Your task to perform on an android device: read, delete, or share a saved page in the chrome app Image 0: 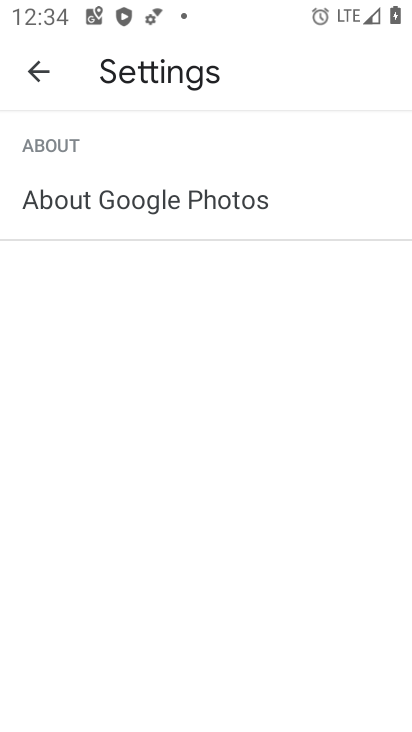
Step 0: press home button
Your task to perform on an android device: read, delete, or share a saved page in the chrome app Image 1: 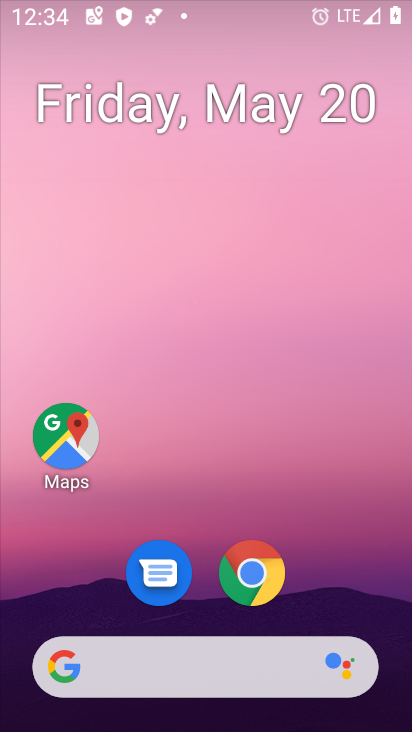
Step 1: drag from (326, 588) to (374, 106)
Your task to perform on an android device: read, delete, or share a saved page in the chrome app Image 2: 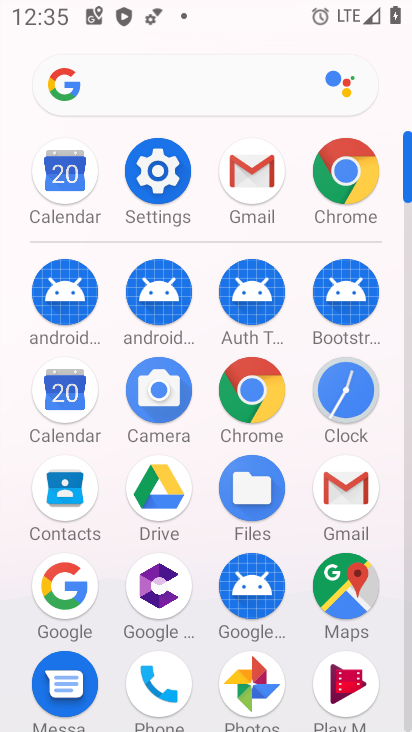
Step 2: click (342, 174)
Your task to perform on an android device: read, delete, or share a saved page in the chrome app Image 3: 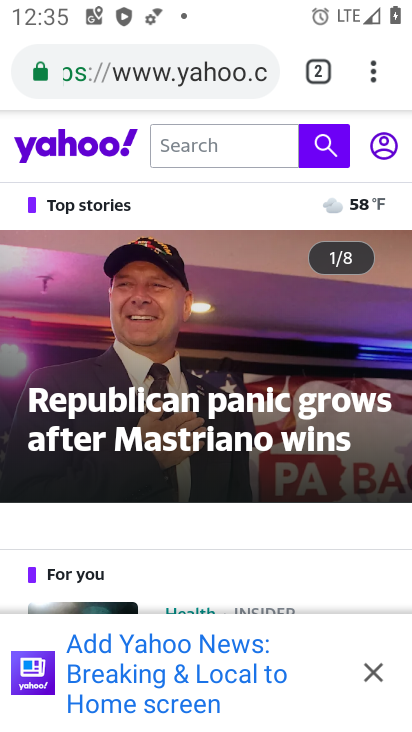
Step 3: click (366, 69)
Your task to perform on an android device: read, delete, or share a saved page in the chrome app Image 4: 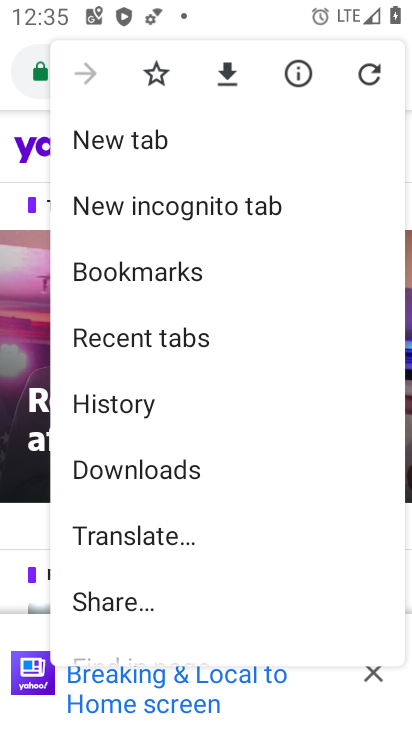
Step 4: click (169, 465)
Your task to perform on an android device: read, delete, or share a saved page in the chrome app Image 5: 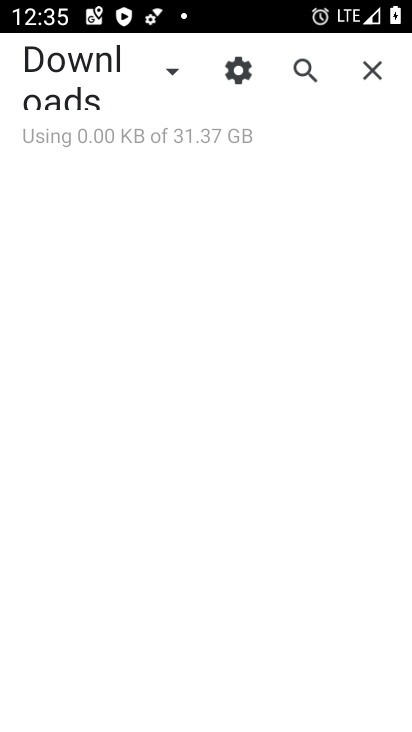
Step 5: task complete